Your task to perform on an android device: empty trash in google photos Image 0: 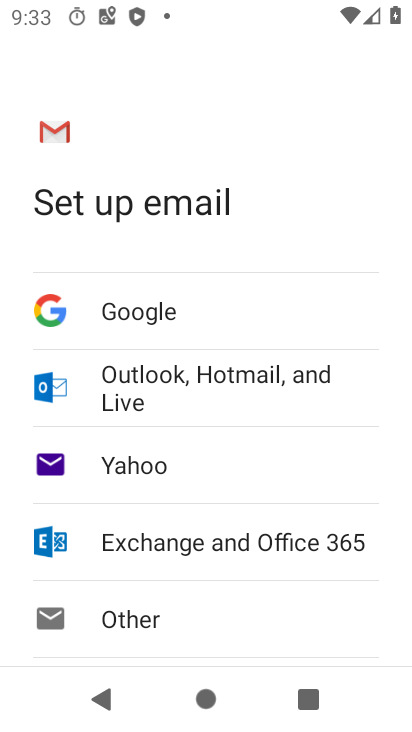
Step 0: press home button
Your task to perform on an android device: empty trash in google photos Image 1: 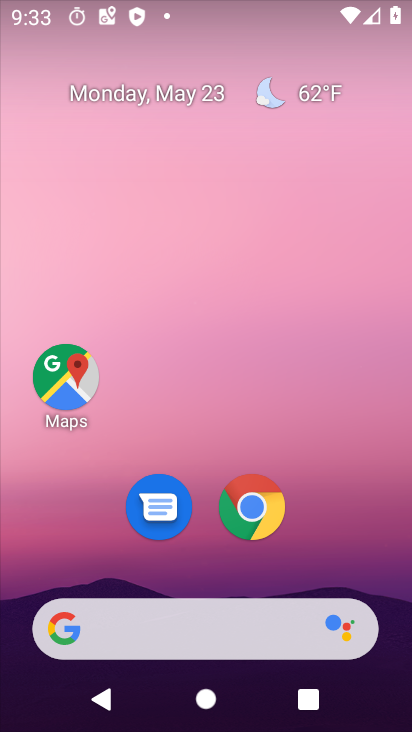
Step 1: drag from (326, 532) to (224, 160)
Your task to perform on an android device: empty trash in google photos Image 2: 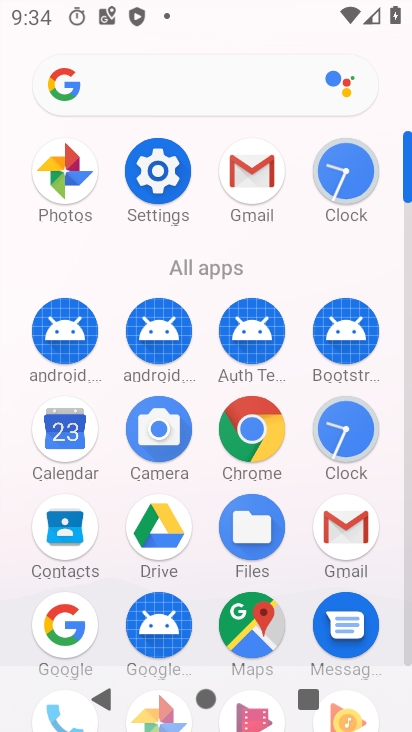
Step 2: click (66, 168)
Your task to perform on an android device: empty trash in google photos Image 3: 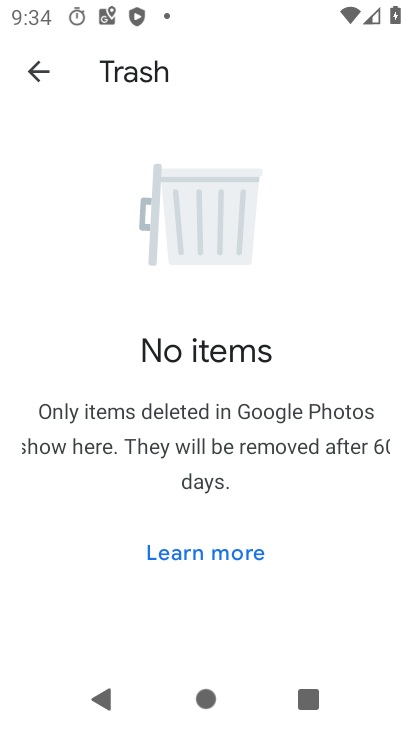
Step 3: task complete